Your task to perform on an android device: Search for a 3d printer on aliexpress Image 0: 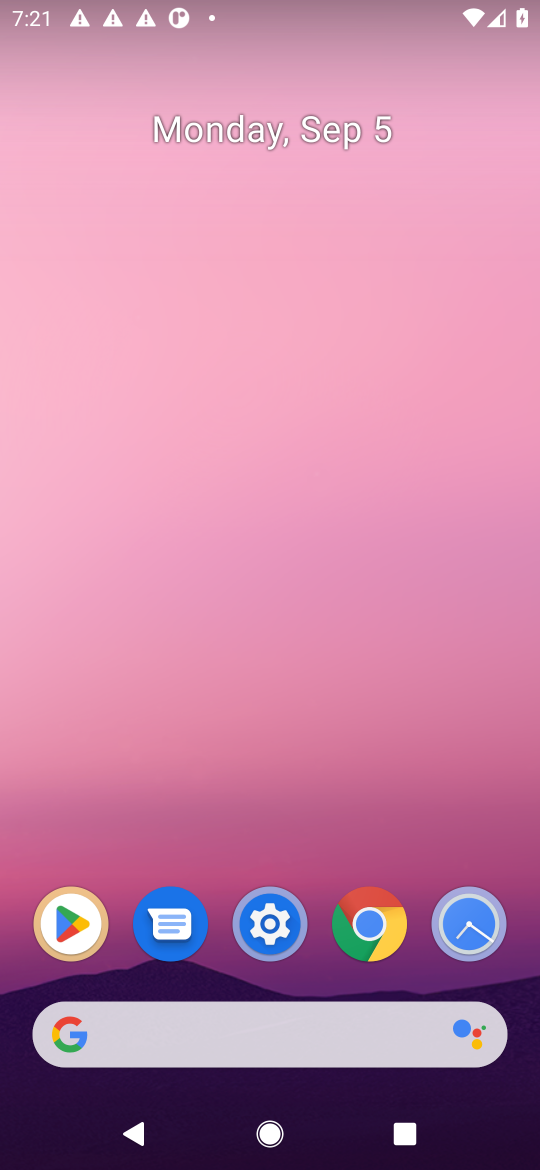
Step 0: click (379, 1034)
Your task to perform on an android device: Search for a 3d printer on aliexpress Image 1: 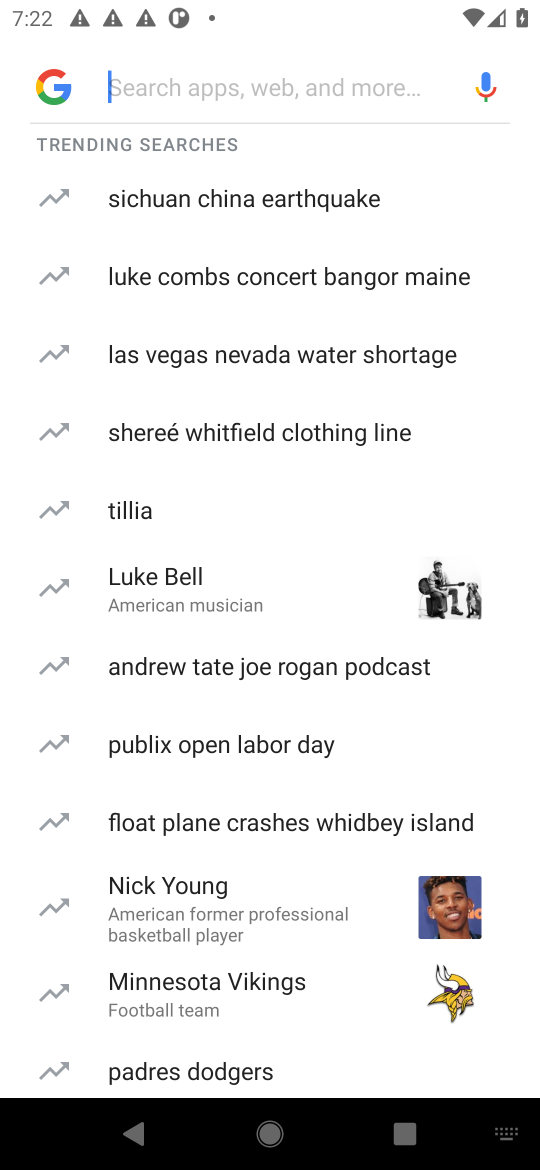
Step 1: press enter
Your task to perform on an android device: Search for a 3d printer on aliexpress Image 2: 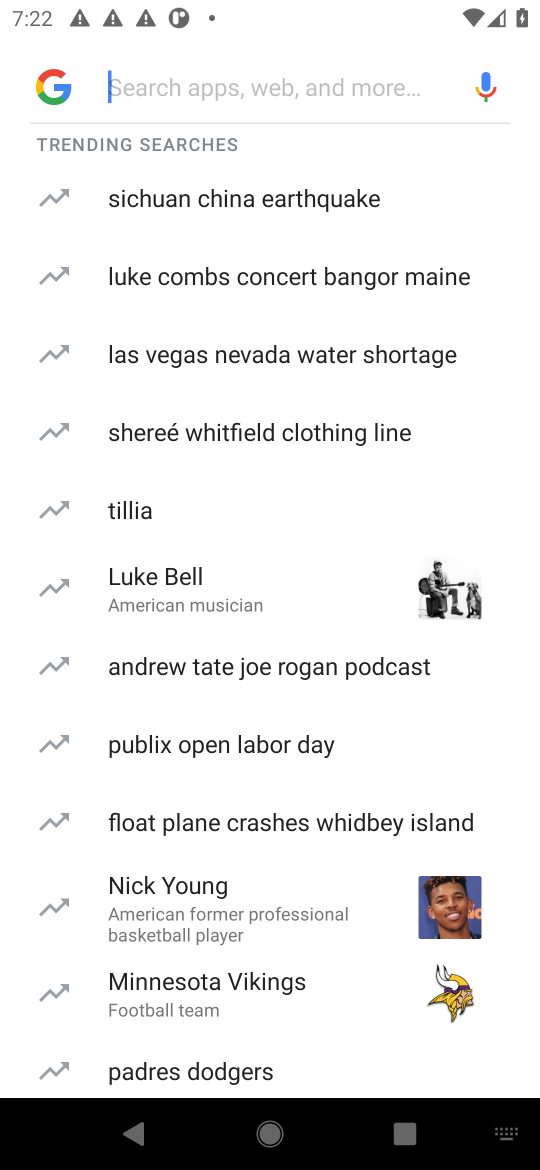
Step 2: type "aliexpress"
Your task to perform on an android device: Search for a 3d printer on aliexpress Image 3: 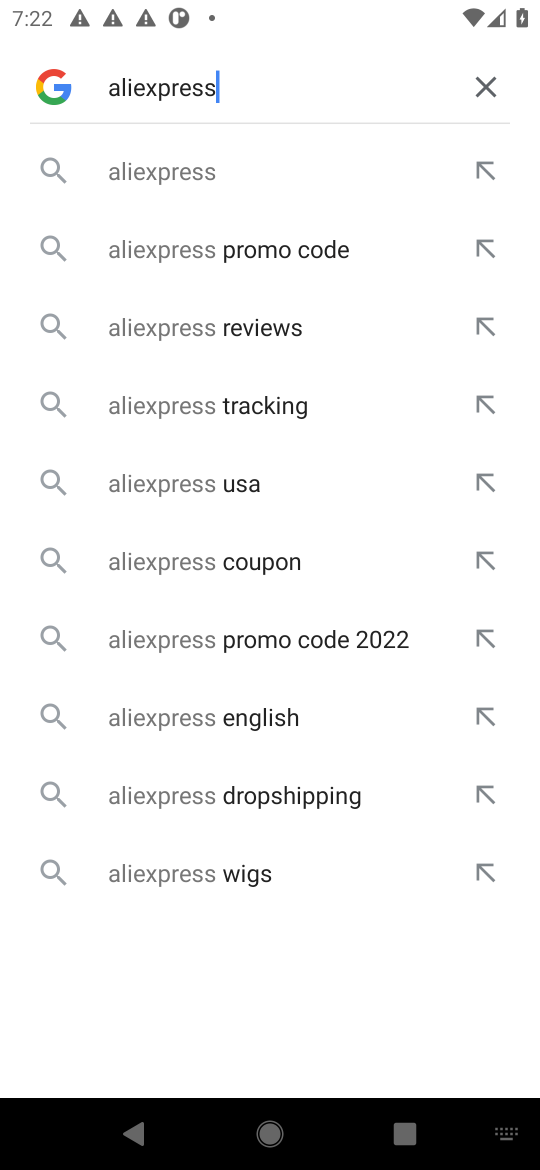
Step 3: click (314, 170)
Your task to perform on an android device: Search for a 3d printer on aliexpress Image 4: 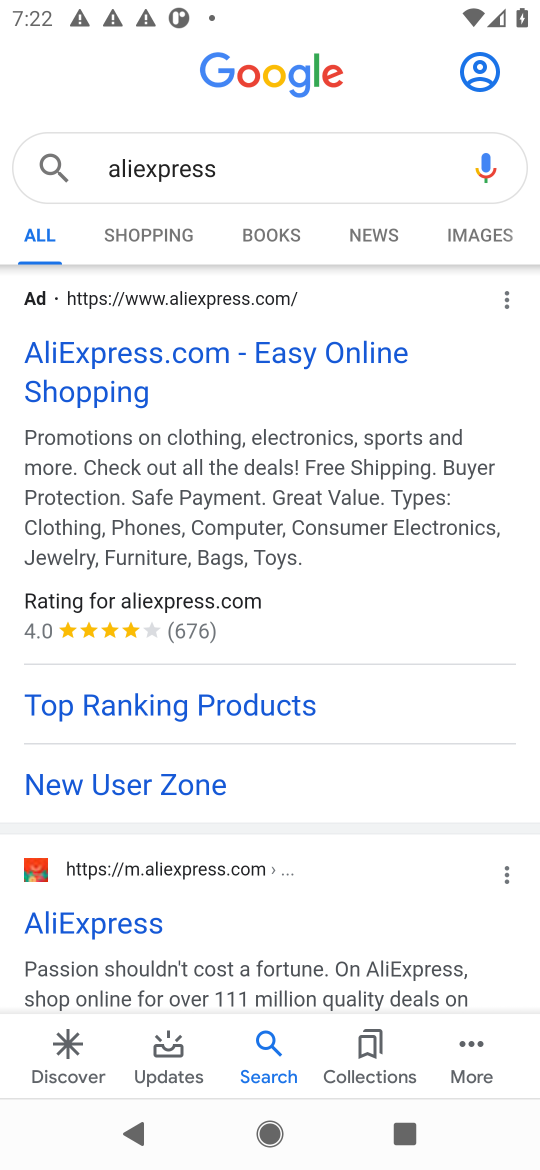
Step 4: click (208, 356)
Your task to perform on an android device: Search for a 3d printer on aliexpress Image 5: 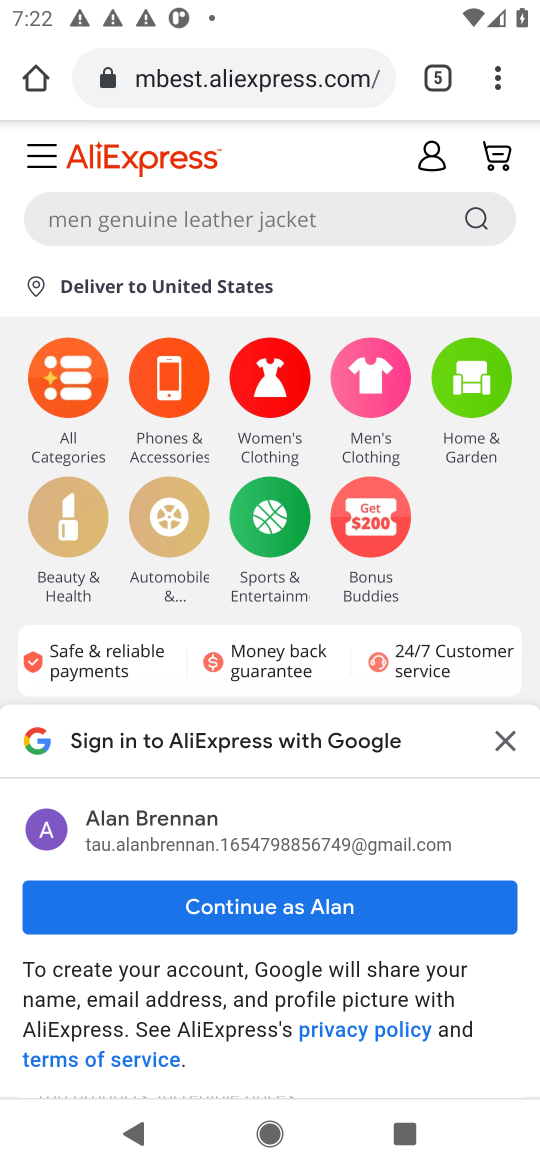
Step 5: click (502, 733)
Your task to perform on an android device: Search for a 3d printer on aliexpress Image 6: 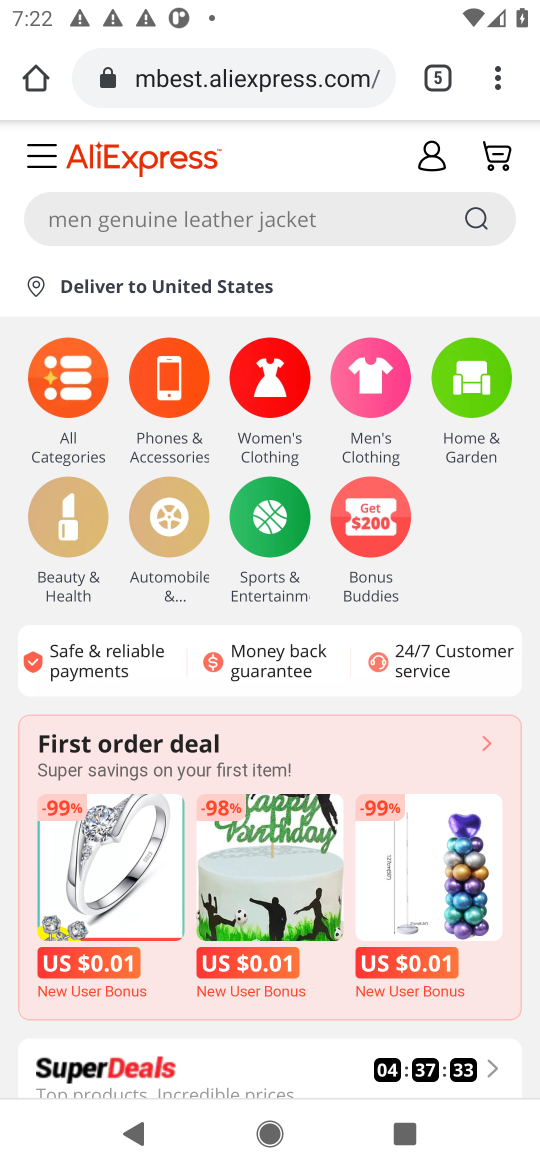
Step 6: click (132, 225)
Your task to perform on an android device: Search for a 3d printer on aliexpress Image 7: 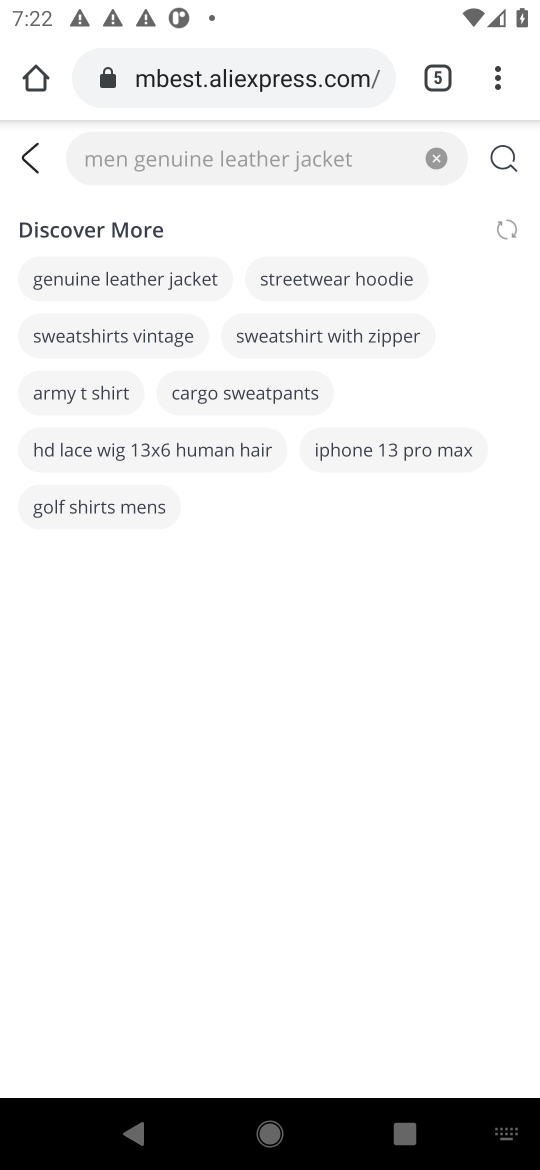
Step 7: type "3d printer"
Your task to perform on an android device: Search for a 3d printer on aliexpress Image 8: 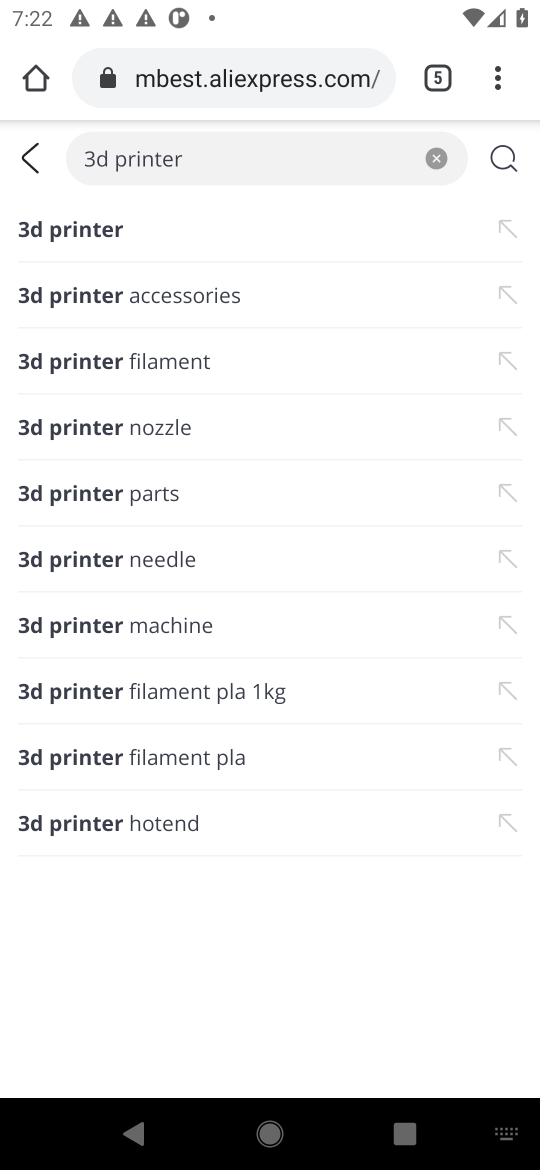
Step 8: click (227, 219)
Your task to perform on an android device: Search for a 3d printer on aliexpress Image 9: 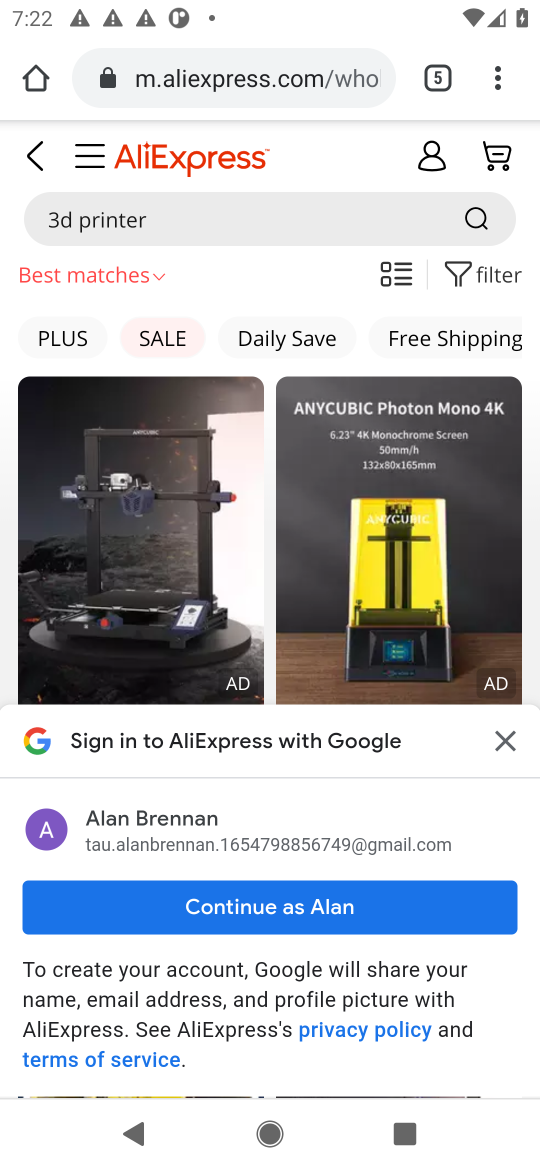
Step 9: click (499, 742)
Your task to perform on an android device: Search for a 3d printer on aliexpress Image 10: 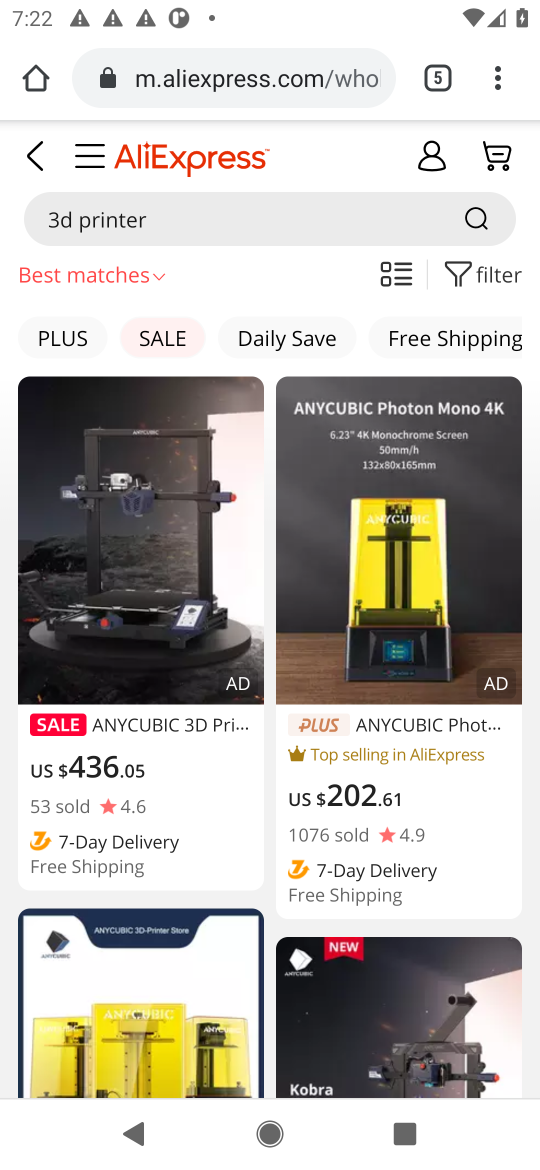
Step 10: task complete